Your task to perform on an android device: Open Google Maps Image 0: 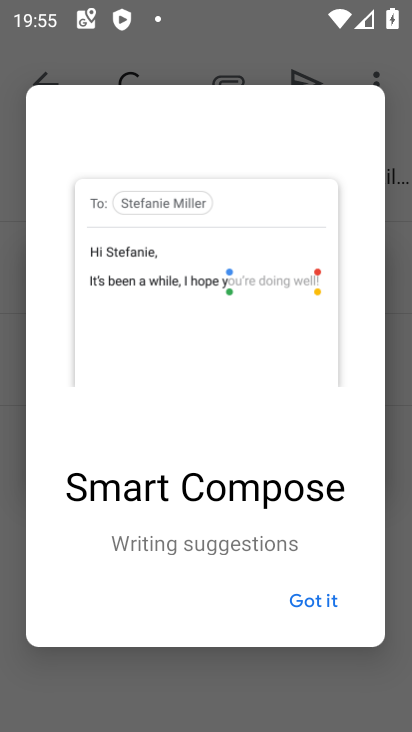
Step 0: press home button
Your task to perform on an android device: Open Google Maps Image 1: 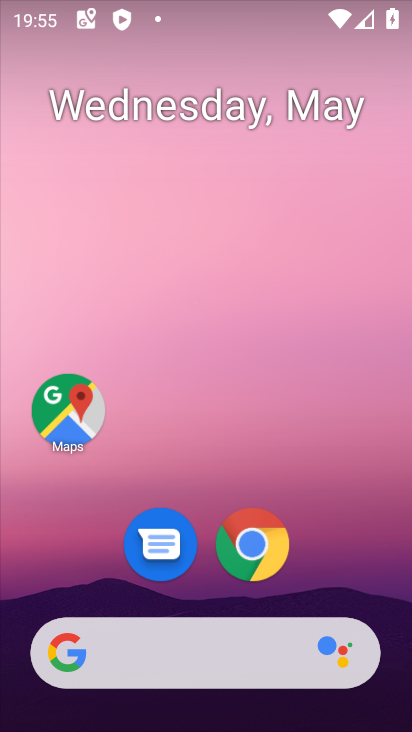
Step 1: click (49, 434)
Your task to perform on an android device: Open Google Maps Image 2: 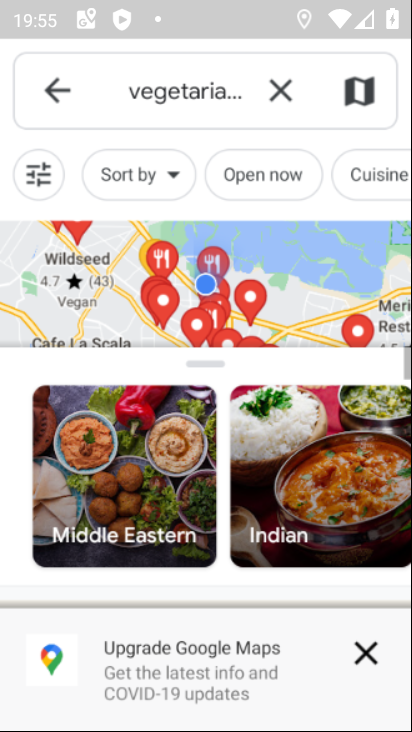
Step 2: task complete